Your task to perform on an android device: turn on location history Image 0: 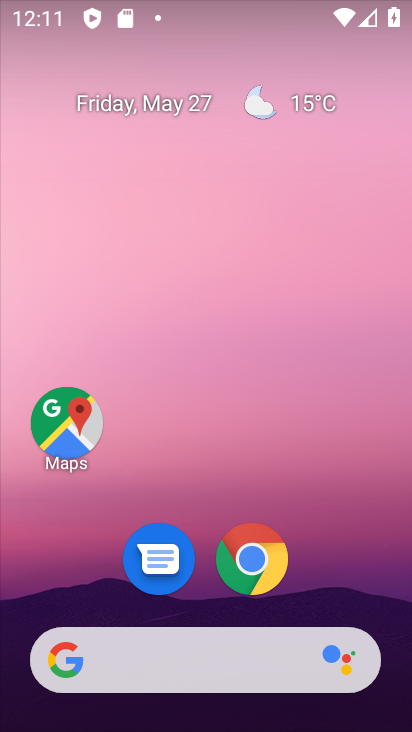
Step 0: drag from (305, 359) to (231, 33)
Your task to perform on an android device: turn on location history Image 1: 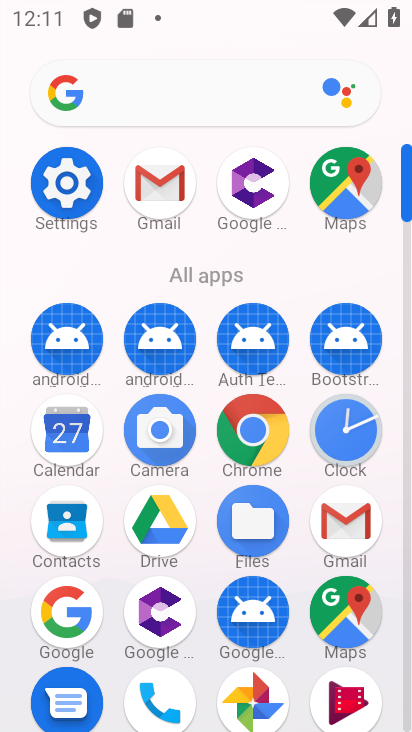
Step 1: click (66, 171)
Your task to perform on an android device: turn on location history Image 2: 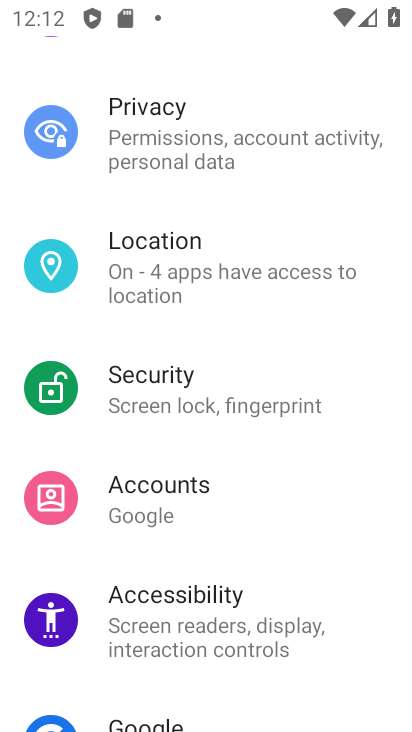
Step 2: click (223, 276)
Your task to perform on an android device: turn on location history Image 3: 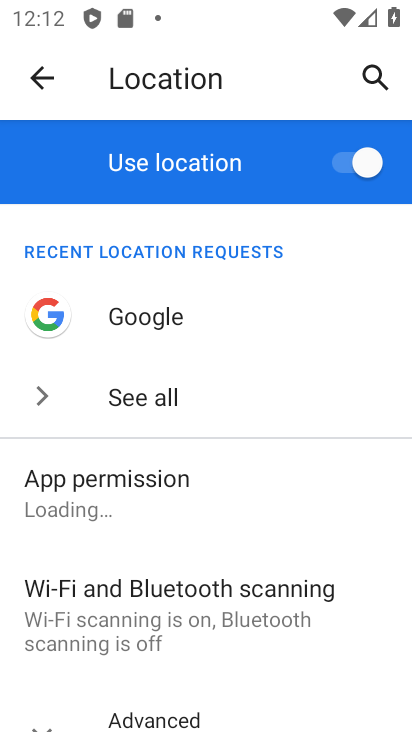
Step 3: drag from (245, 629) to (264, 203)
Your task to perform on an android device: turn on location history Image 4: 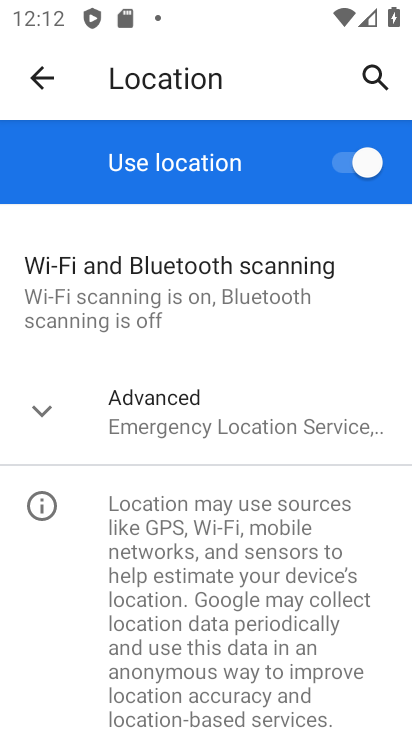
Step 4: click (229, 407)
Your task to perform on an android device: turn on location history Image 5: 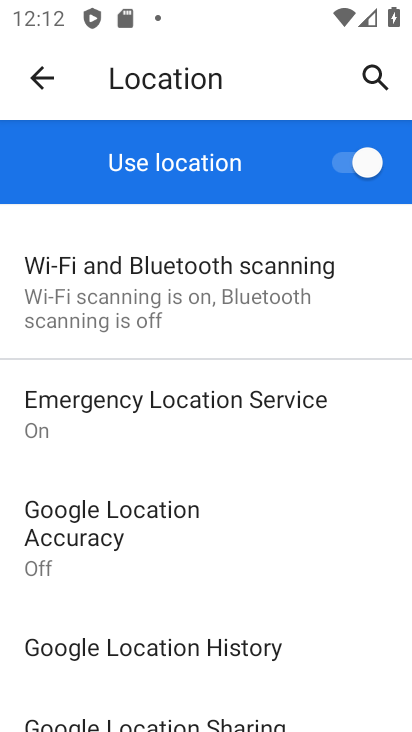
Step 5: drag from (230, 594) to (259, 254)
Your task to perform on an android device: turn on location history Image 6: 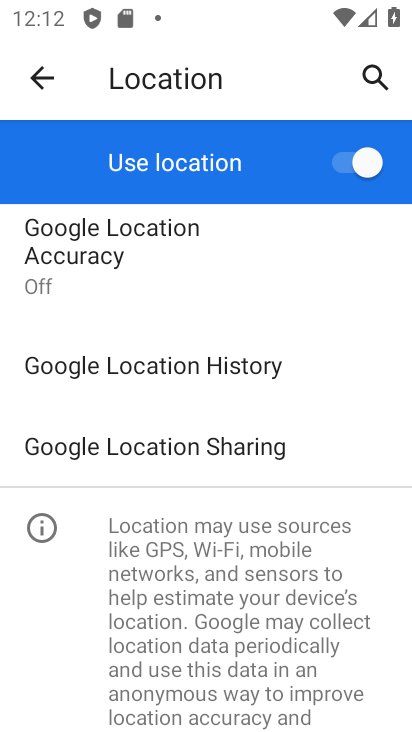
Step 6: click (210, 373)
Your task to perform on an android device: turn on location history Image 7: 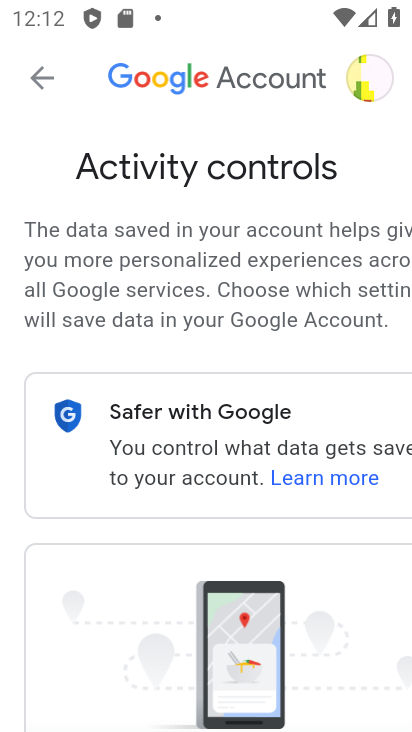
Step 7: task complete